Your task to perform on an android device: change text size in settings app Image 0: 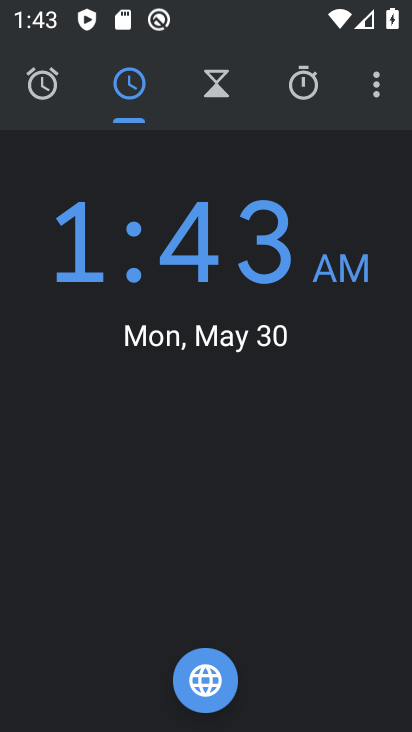
Step 0: press home button
Your task to perform on an android device: change text size in settings app Image 1: 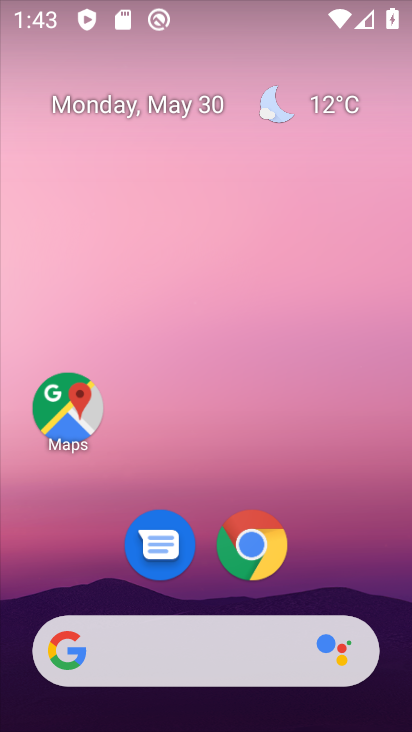
Step 1: drag from (207, 577) to (176, 119)
Your task to perform on an android device: change text size in settings app Image 2: 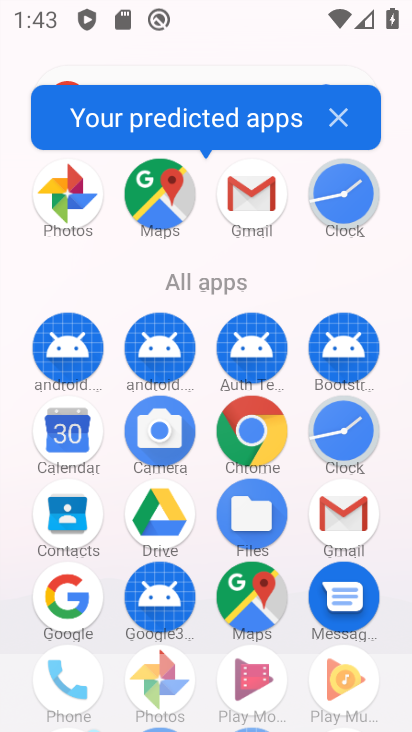
Step 2: drag from (208, 633) to (218, 201)
Your task to perform on an android device: change text size in settings app Image 3: 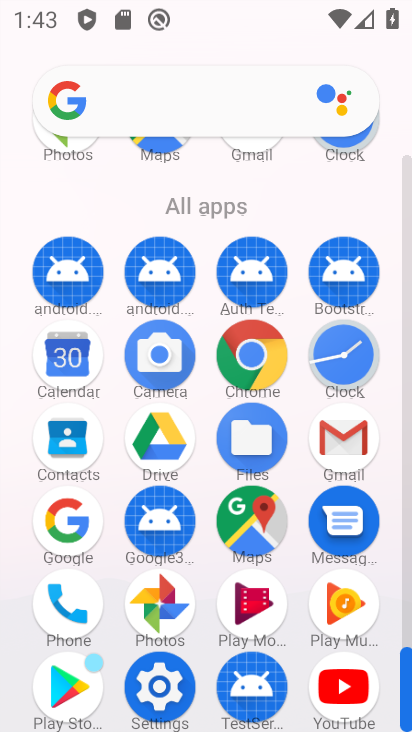
Step 3: click (161, 683)
Your task to perform on an android device: change text size in settings app Image 4: 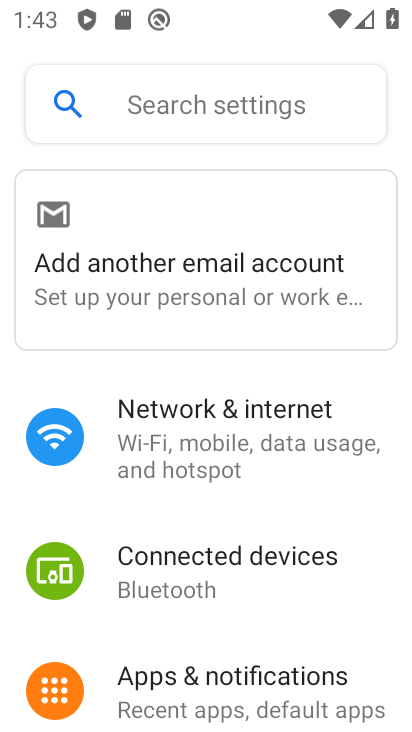
Step 4: drag from (161, 683) to (174, 173)
Your task to perform on an android device: change text size in settings app Image 5: 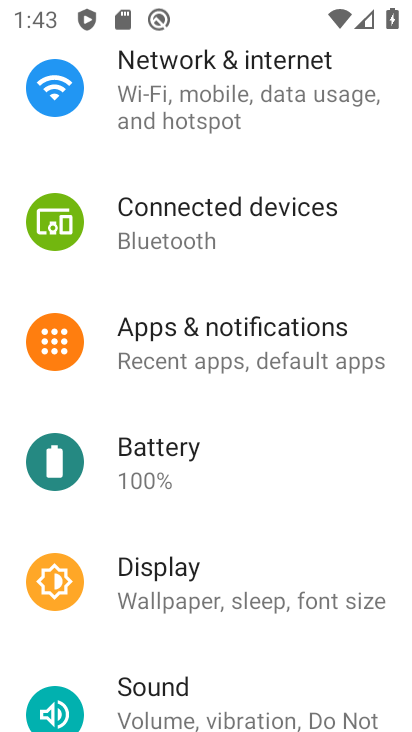
Step 5: click (279, 605)
Your task to perform on an android device: change text size in settings app Image 6: 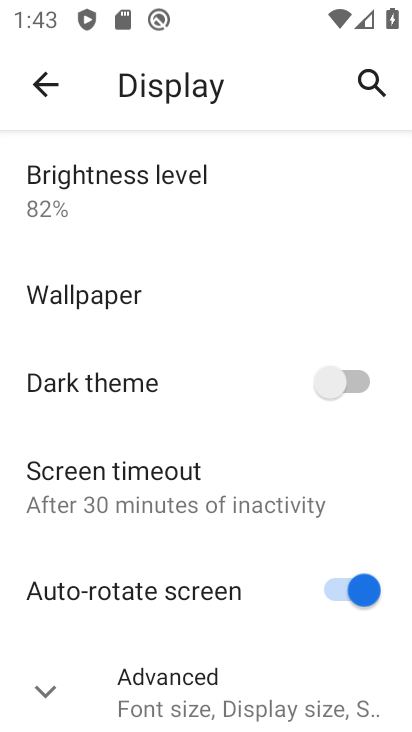
Step 6: click (133, 583)
Your task to perform on an android device: change text size in settings app Image 7: 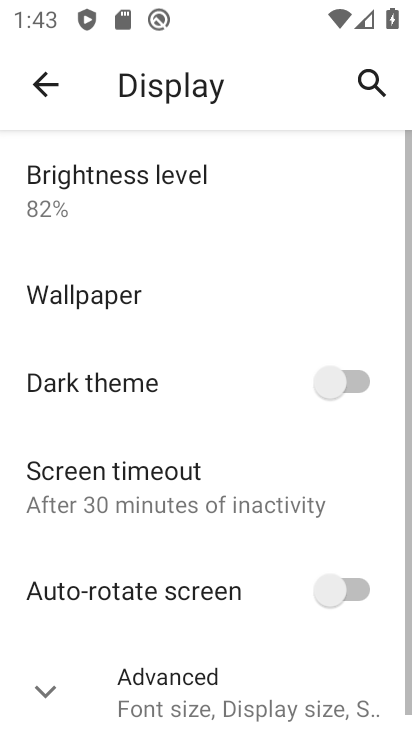
Step 7: click (133, 583)
Your task to perform on an android device: change text size in settings app Image 8: 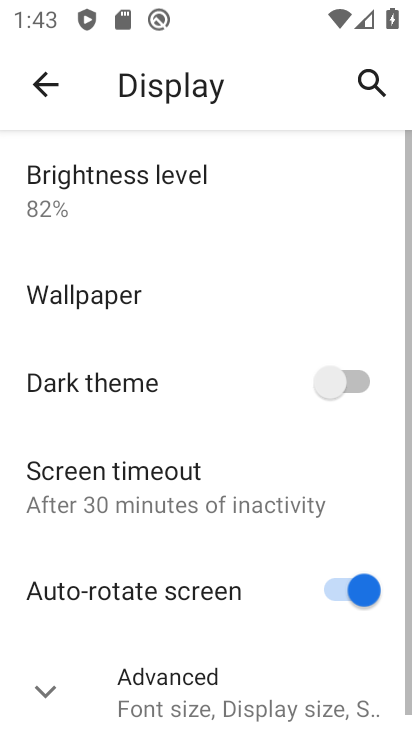
Step 8: click (198, 668)
Your task to perform on an android device: change text size in settings app Image 9: 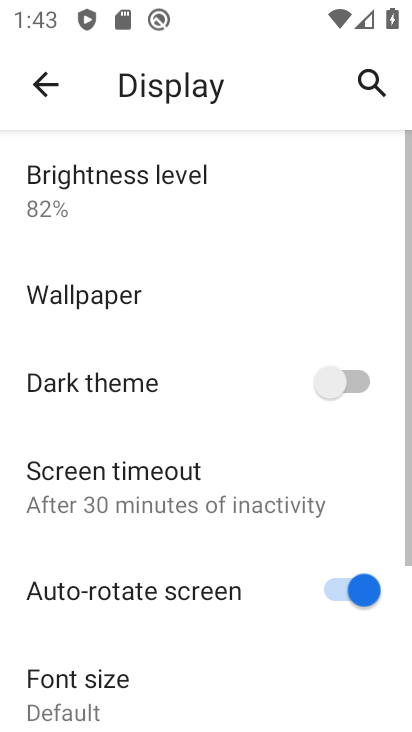
Step 9: drag from (198, 668) to (234, 188)
Your task to perform on an android device: change text size in settings app Image 10: 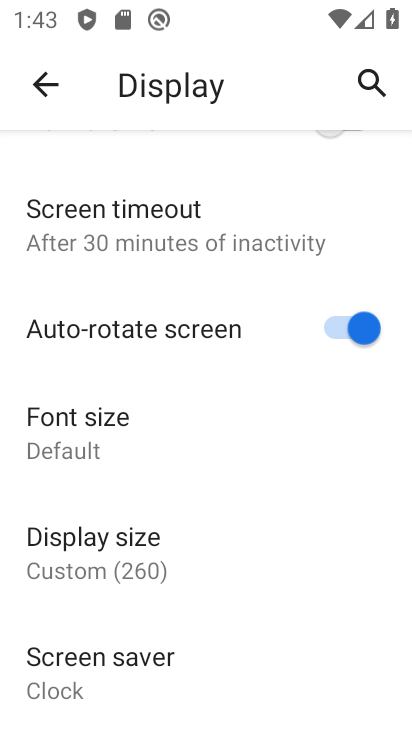
Step 10: click (104, 457)
Your task to perform on an android device: change text size in settings app Image 11: 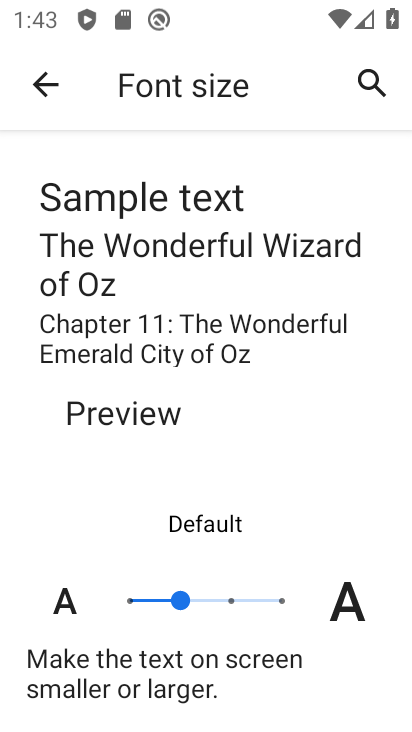
Step 11: click (126, 596)
Your task to perform on an android device: change text size in settings app Image 12: 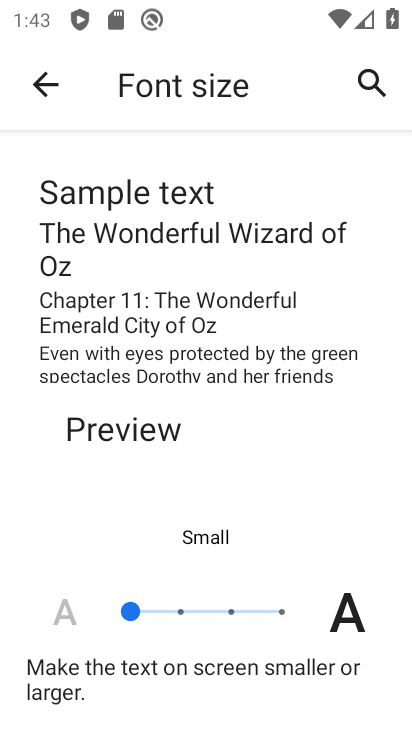
Step 12: task complete